Your task to perform on an android device: uninstall "Google Sheets" Image 0: 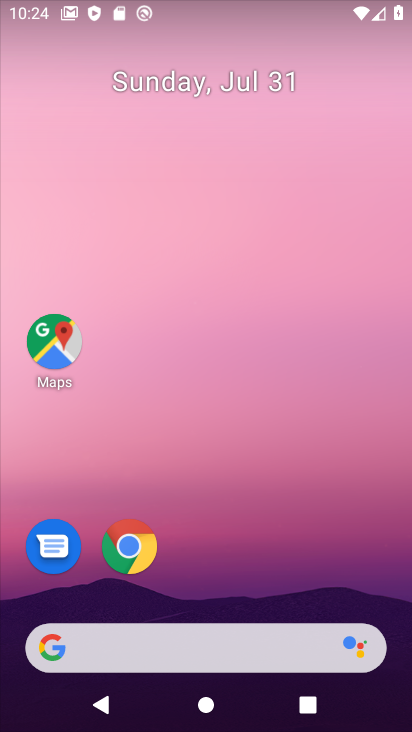
Step 0: click (249, 639)
Your task to perform on an android device: uninstall "Google Sheets" Image 1: 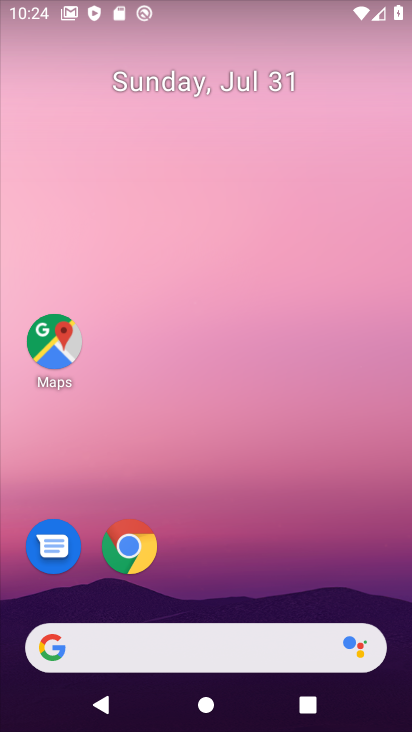
Step 1: click (249, 639)
Your task to perform on an android device: uninstall "Google Sheets" Image 2: 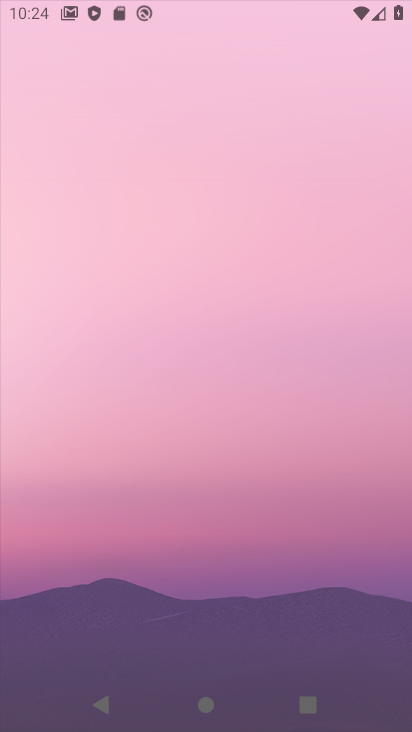
Step 2: drag from (214, 637) to (230, 409)
Your task to perform on an android device: uninstall "Google Sheets" Image 3: 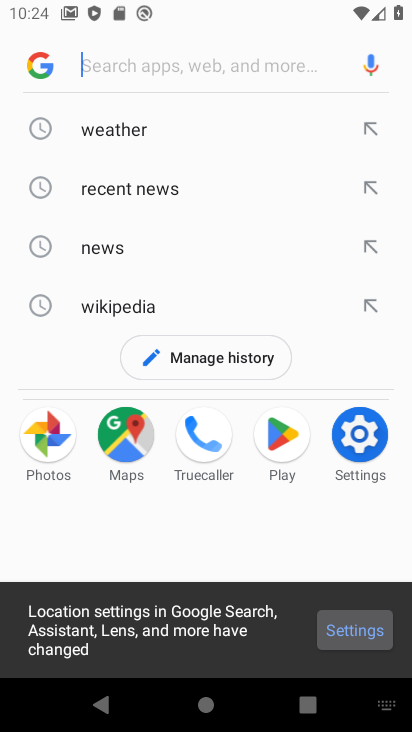
Step 3: press home button
Your task to perform on an android device: uninstall "Google Sheets" Image 4: 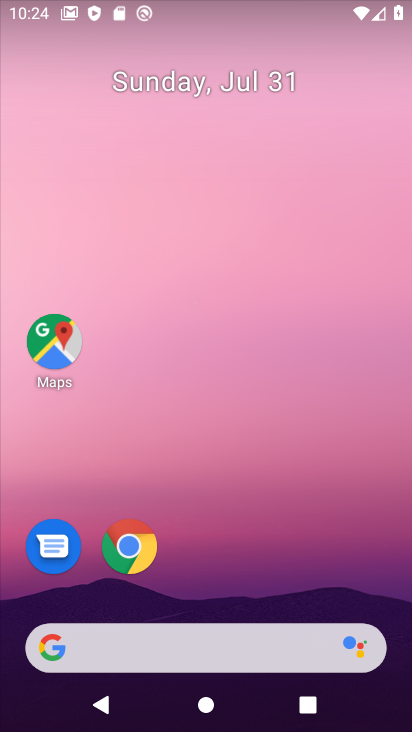
Step 4: drag from (203, 622) to (217, 162)
Your task to perform on an android device: uninstall "Google Sheets" Image 5: 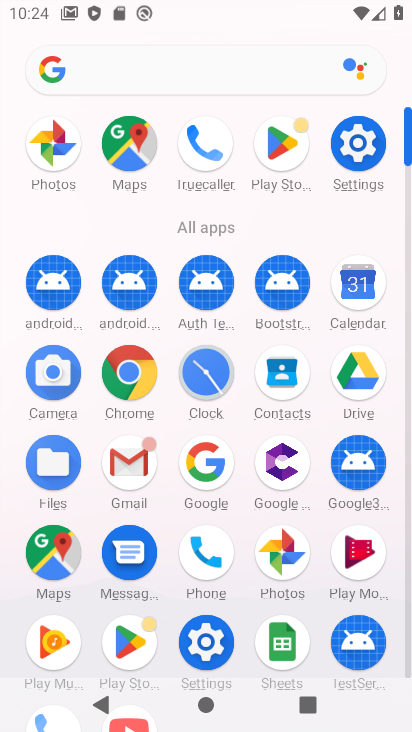
Step 5: click (141, 639)
Your task to perform on an android device: uninstall "Google Sheets" Image 6: 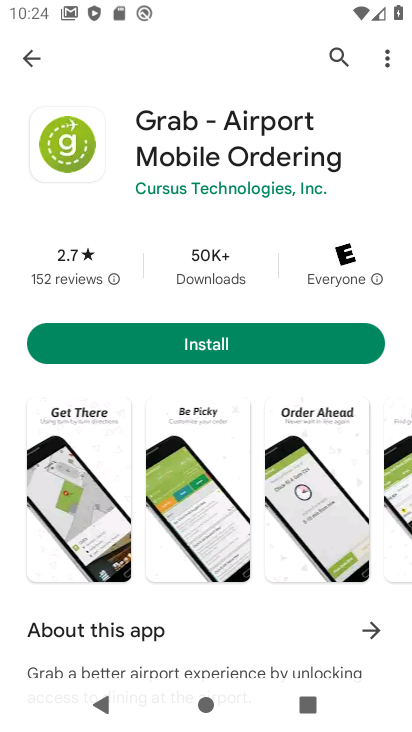
Step 6: click (333, 47)
Your task to perform on an android device: uninstall "Google Sheets" Image 7: 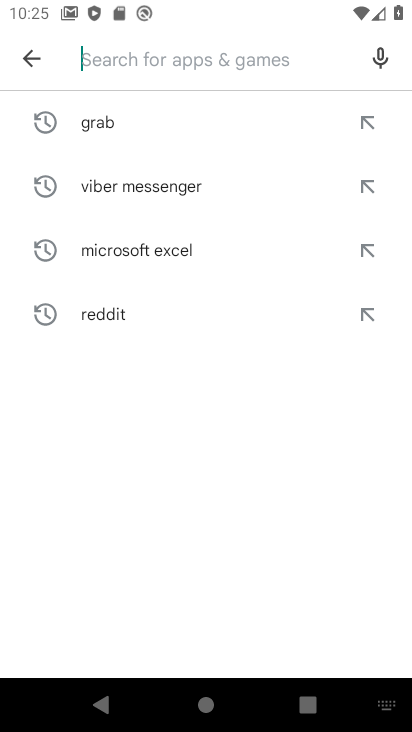
Step 7: type "google sheets"
Your task to perform on an android device: uninstall "Google Sheets" Image 8: 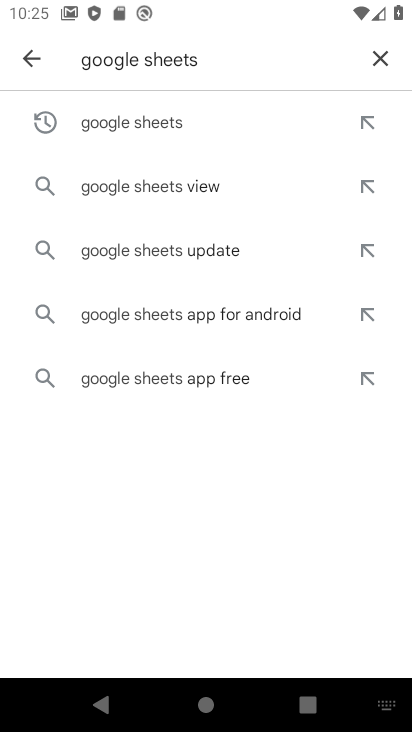
Step 8: click (168, 121)
Your task to perform on an android device: uninstall "Google Sheets" Image 9: 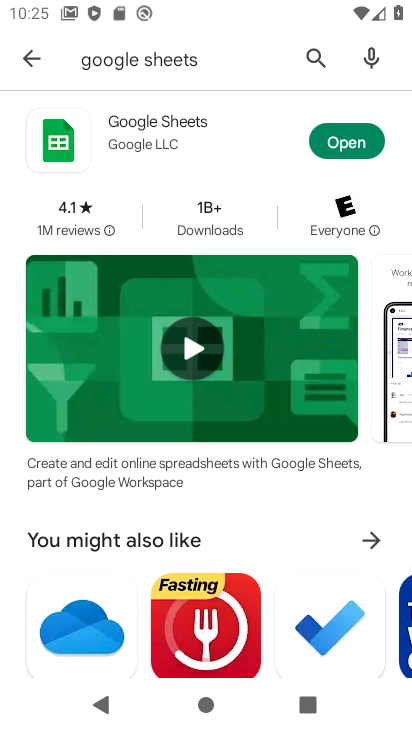
Step 9: task complete